Your task to perform on an android device: What's on my calendar today? Image 0: 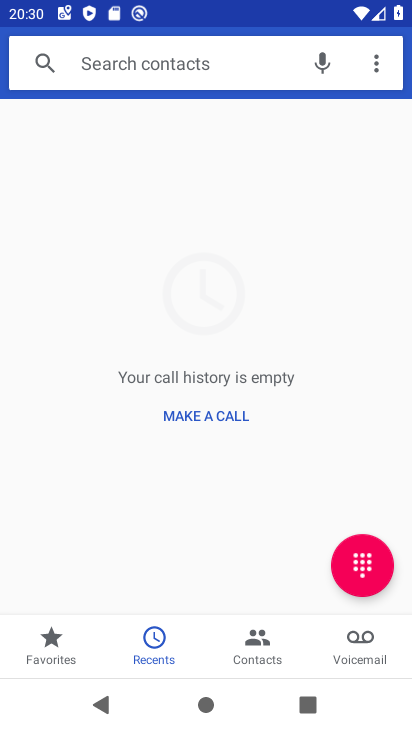
Step 0: press home button
Your task to perform on an android device: What's on my calendar today? Image 1: 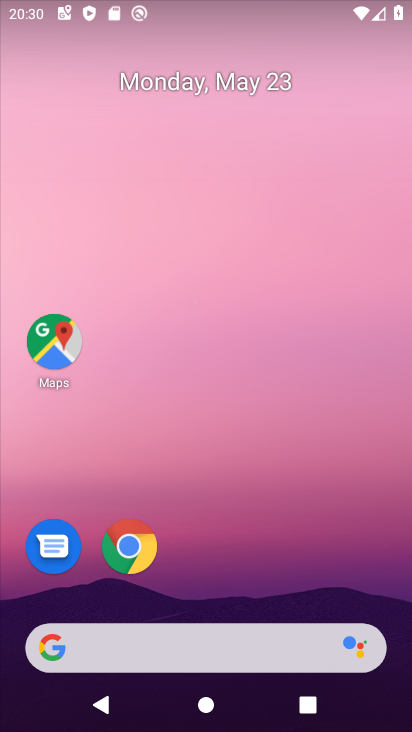
Step 1: drag from (376, 585) to (390, 191)
Your task to perform on an android device: What's on my calendar today? Image 2: 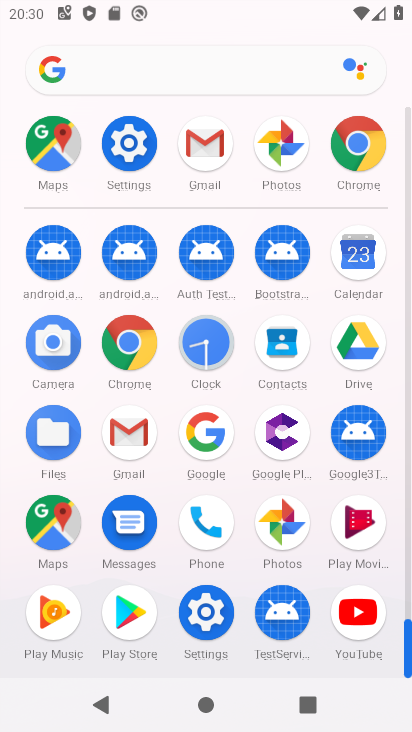
Step 2: click (363, 266)
Your task to perform on an android device: What's on my calendar today? Image 3: 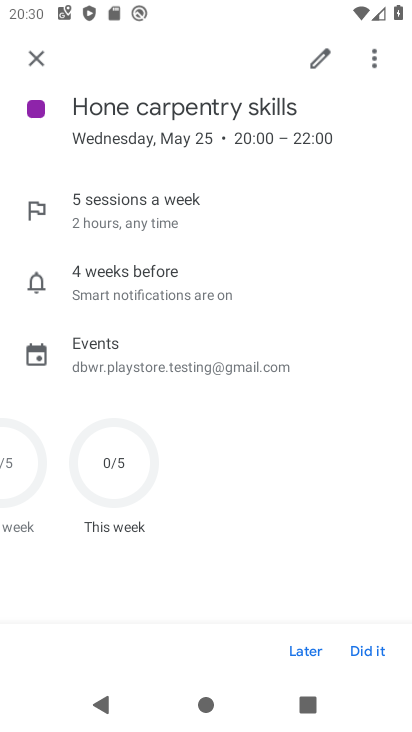
Step 3: click (38, 66)
Your task to perform on an android device: What's on my calendar today? Image 4: 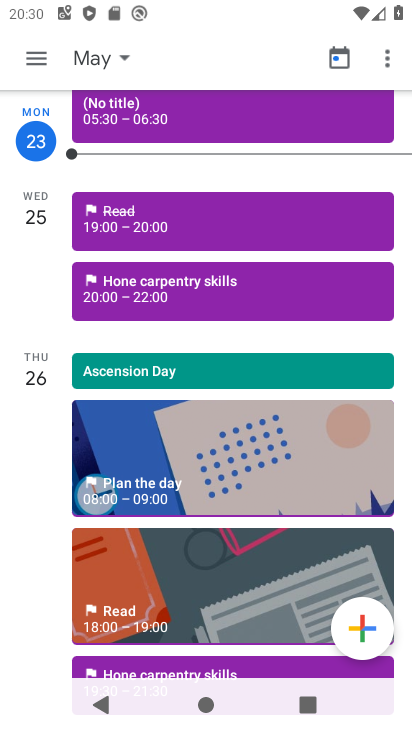
Step 4: click (130, 61)
Your task to perform on an android device: What's on my calendar today? Image 5: 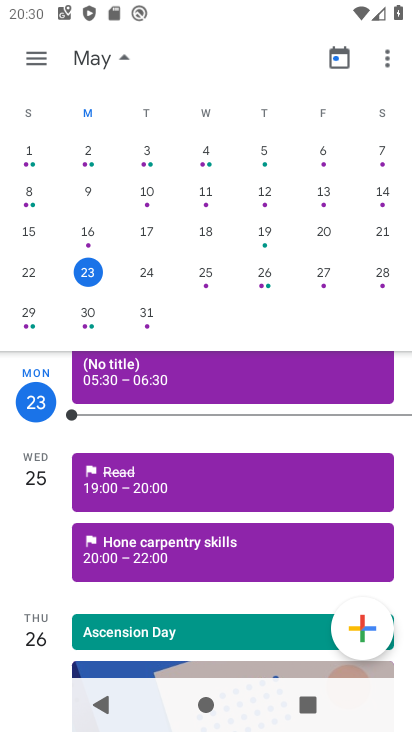
Step 5: click (150, 270)
Your task to perform on an android device: What's on my calendar today? Image 6: 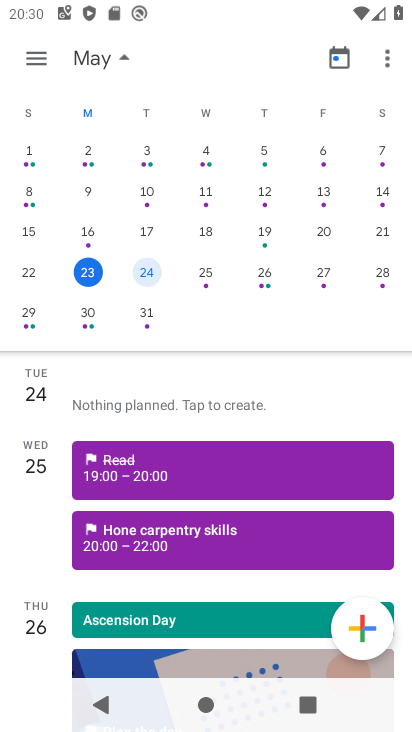
Step 6: task complete